Your task to perform on an android device: Search for the best rated running shoes on Nike.com Image 0: 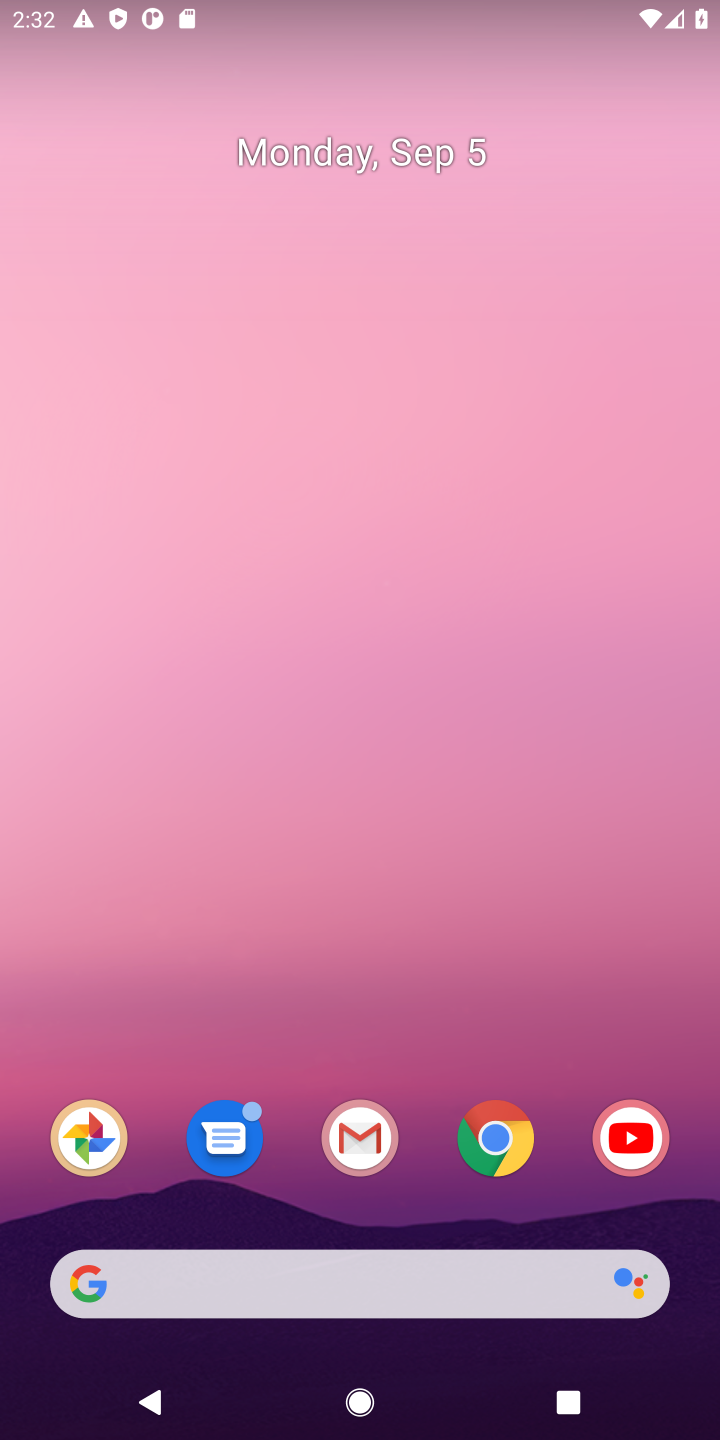
Step 0: click (497, 1140)
Your task to perform on an android device: Search for the best rated running shoes on Nike.com Image 1: 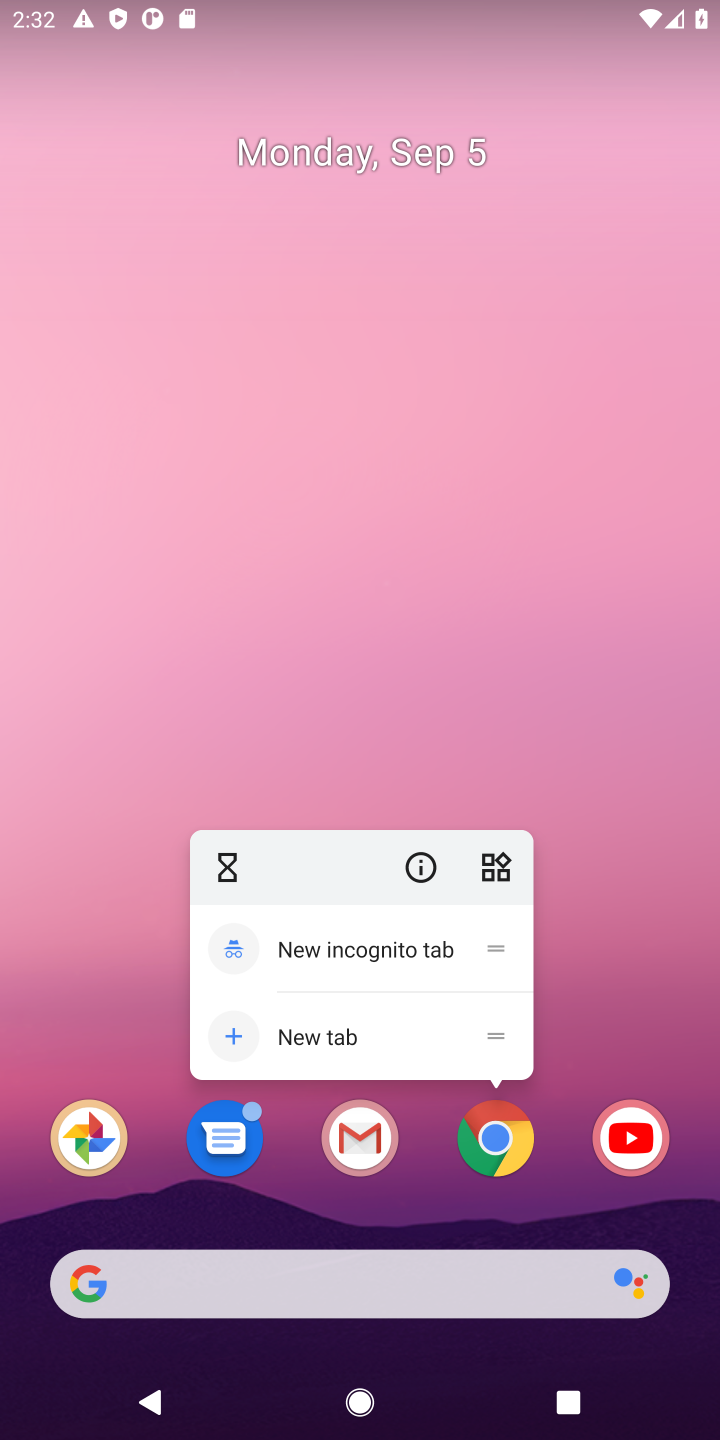
Step 1: click (498, 1136)
Your task to perform on an android device: Search for the best rated running shoes on Nike.com Image 2: 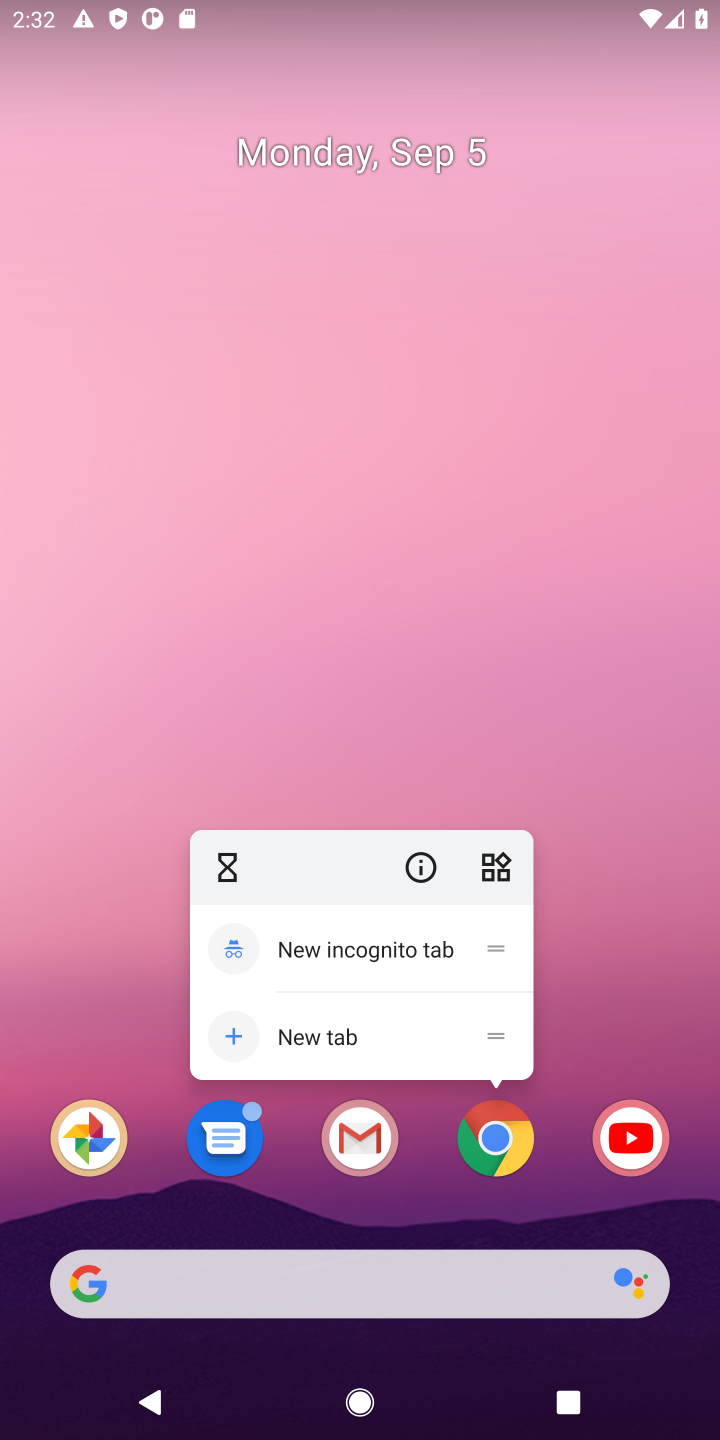
Step 2: click (495, 1137)
Your task to perform on an android device: Search for the best rated running shoes on Nike.com Image 3: 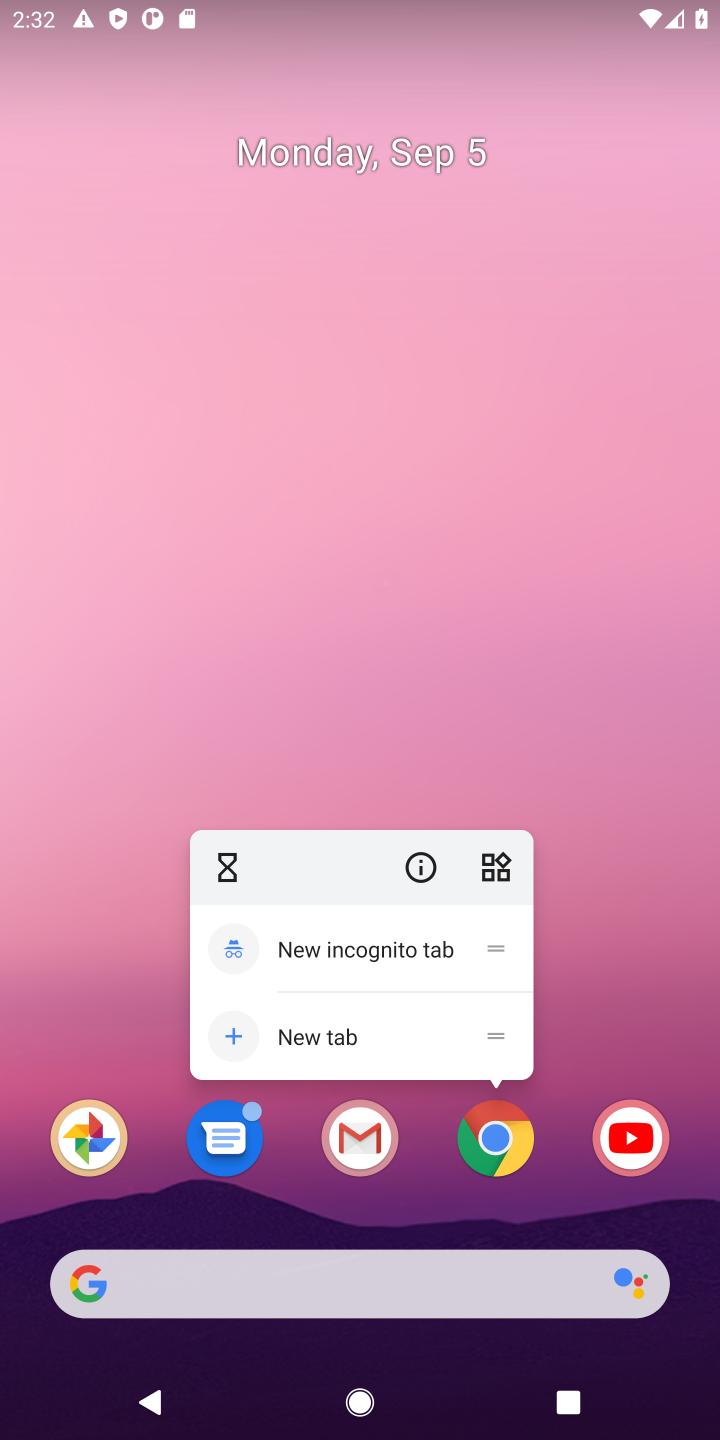
Step 3: click (495, 1137)
Your task to perform on an android device: Search for the best rated running shoes on Nike.com Image 4: 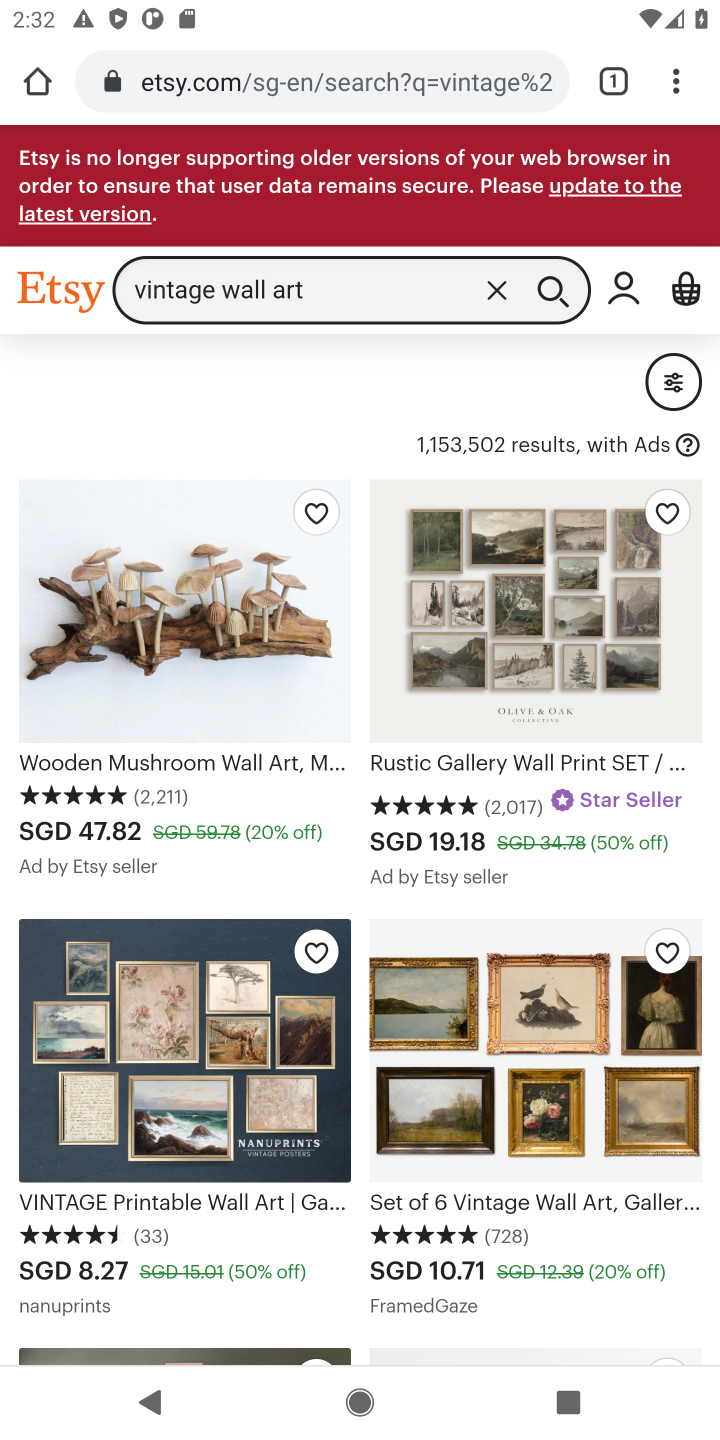
Step 4: click (471, 100)
Your task to perform on an android device: Search for the best rated running shoes on Nike.com Image 5: 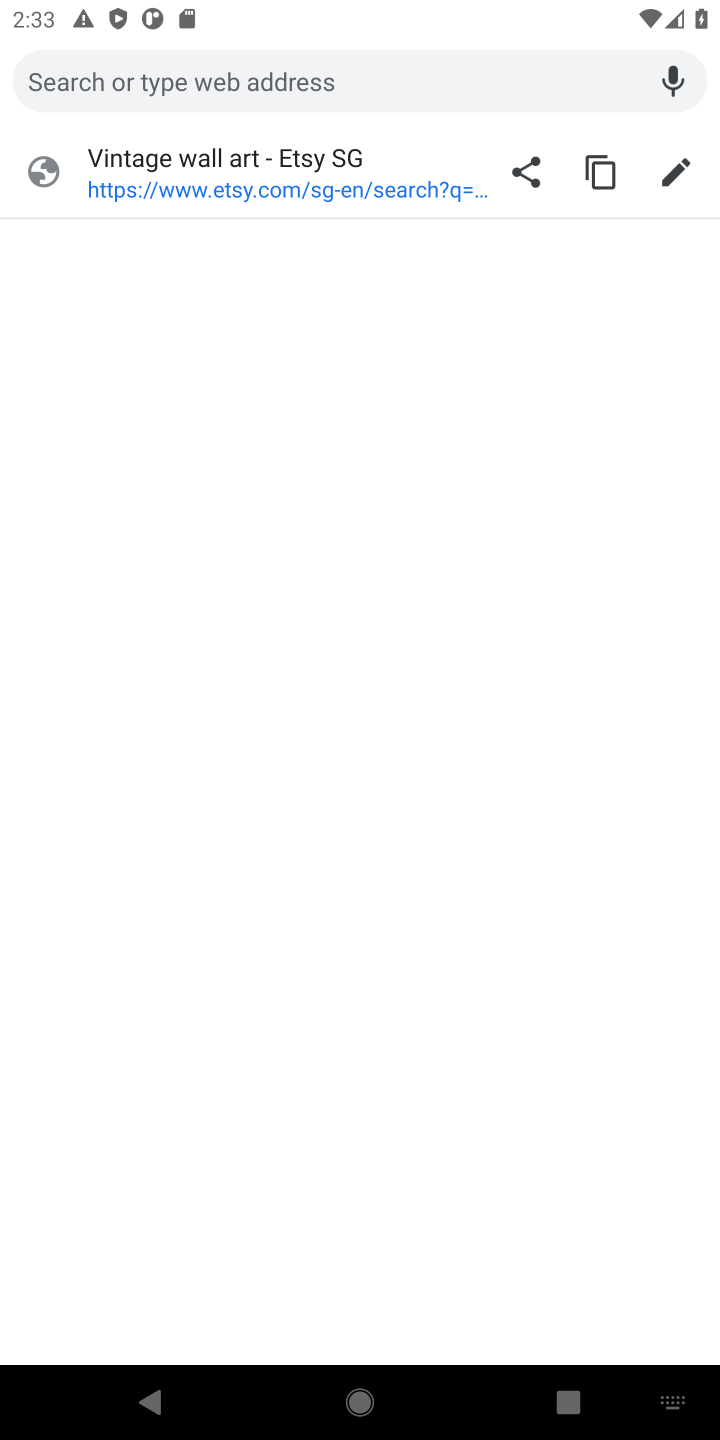
Step 5: type "Nike.com"
Your task to perform on an android device: Search for the best rated running shoes on Nike.com Image 6: 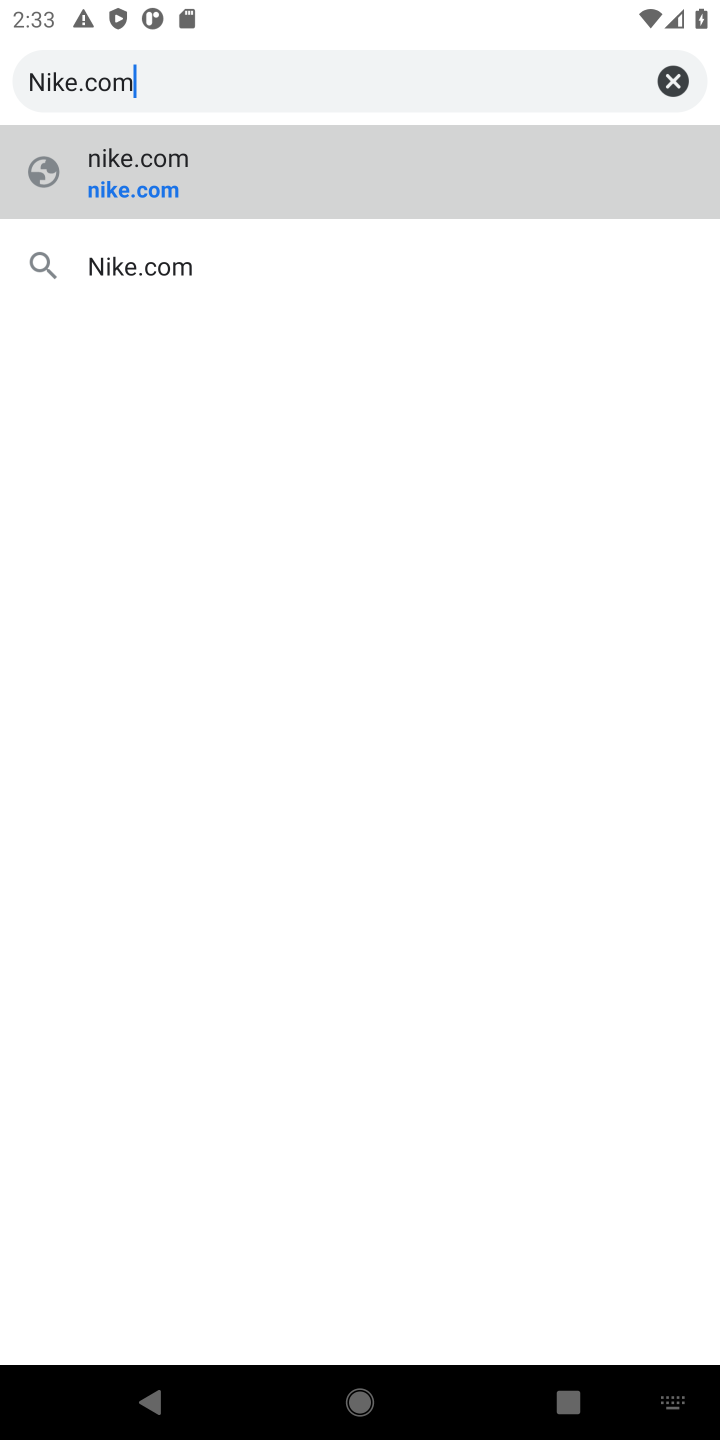
Step 6: click (166, 275)
Your task to perform on an android device: Search for the best rated running shoes on Nike.com Image 7: 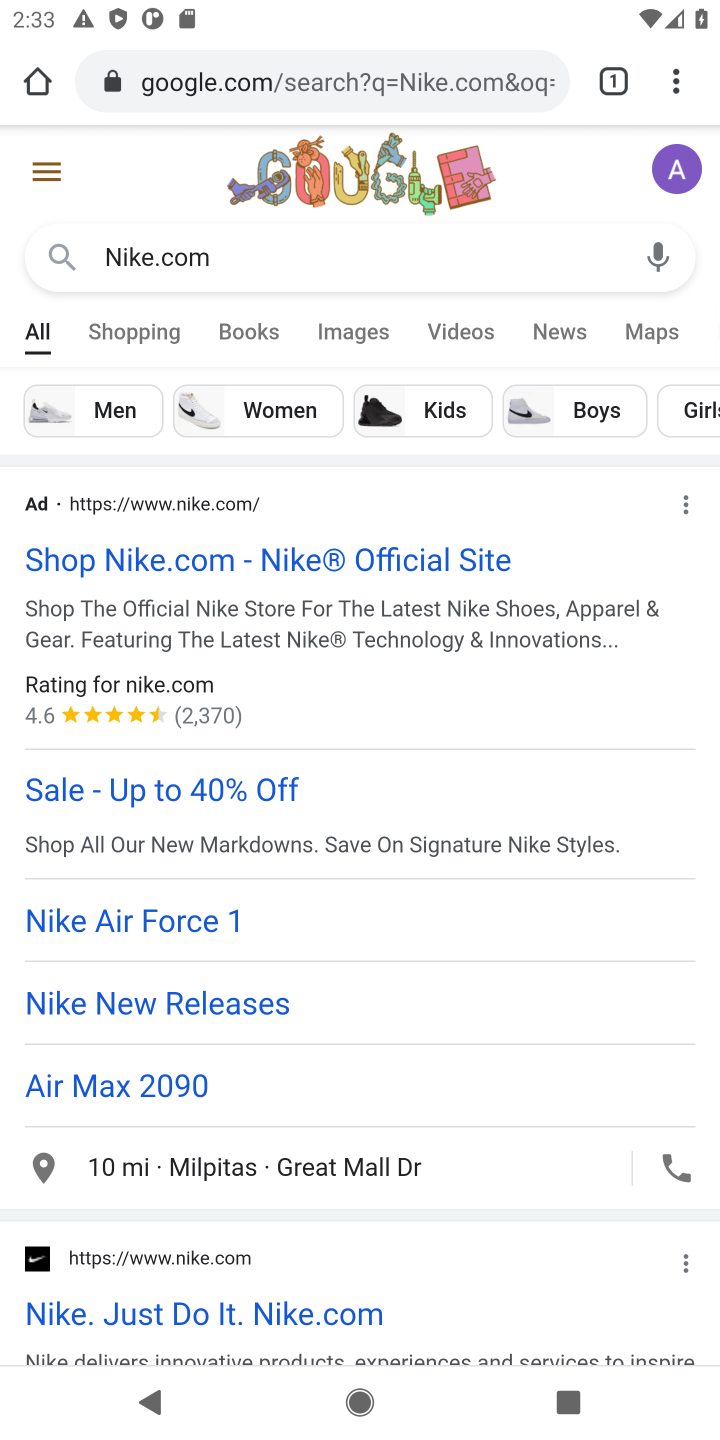
Step 7: click (347, 1331)
Your task to perform on an android device: Search for the best rated running shoes on Nike.com Image 8: 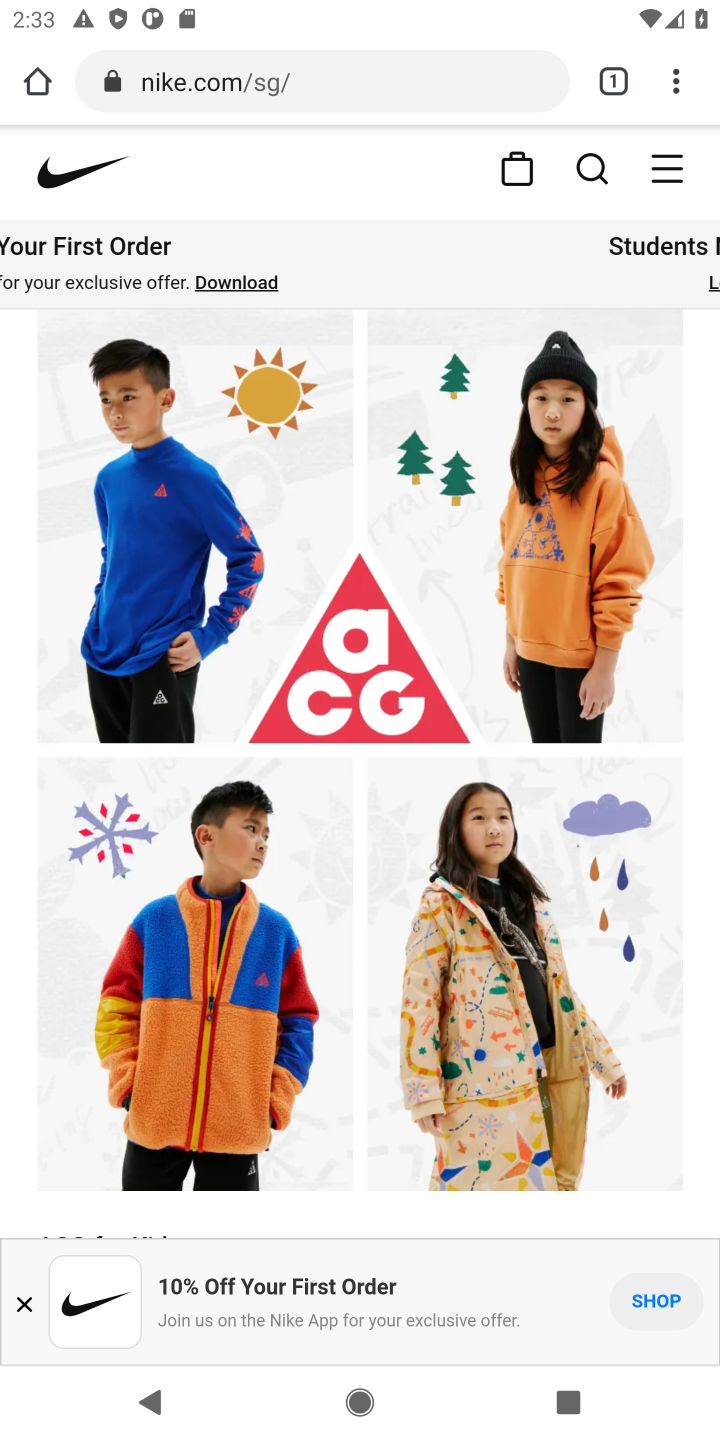
Step 8: click (589, 172)
Your task to perform on an android device: Search for the best rated running shoes on Nike.com Image 9: 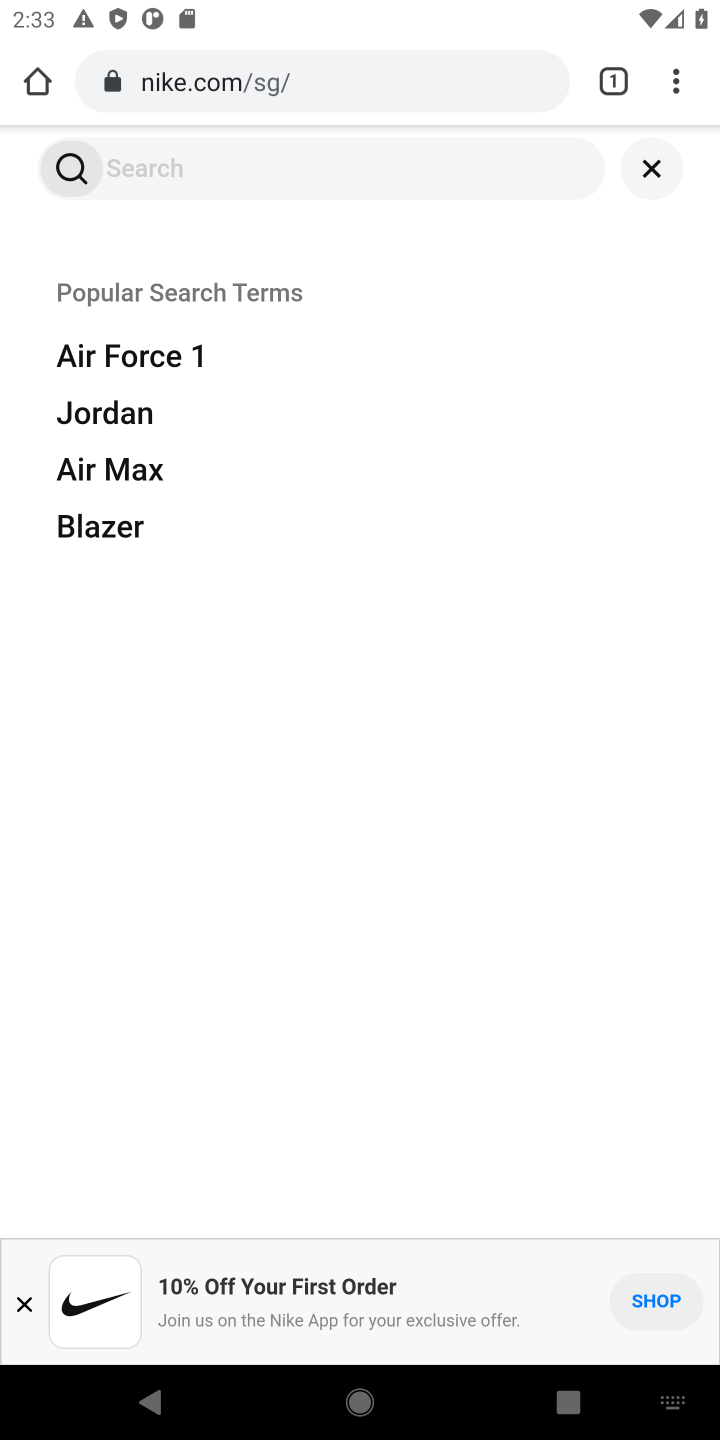
Step 9: click (470, 167)
Your task to perform on an android device: Search for the best rated running shoes on Nike.com Image 10: 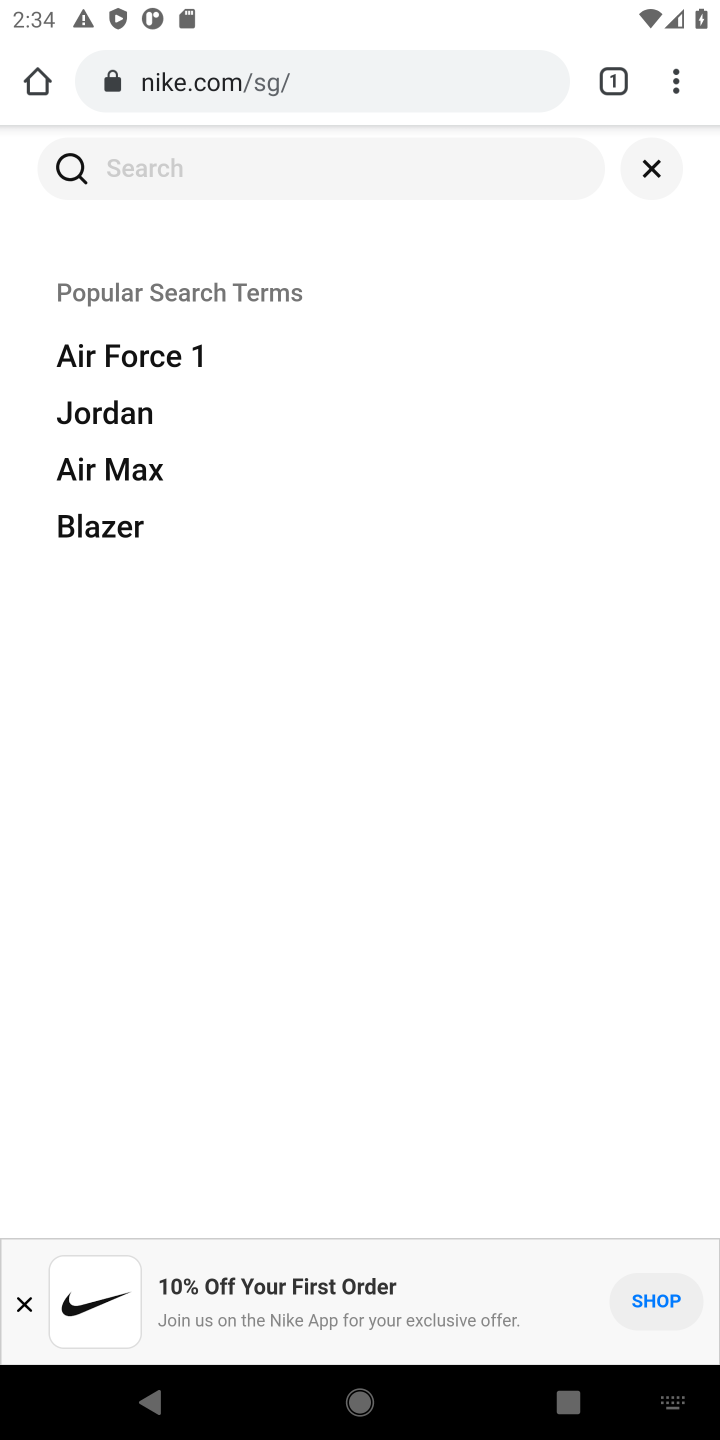
Step 10: type "best rated running shoes"
Your task to perform on an android device: Search for the best rated running shoes on Nike.com Image 11: 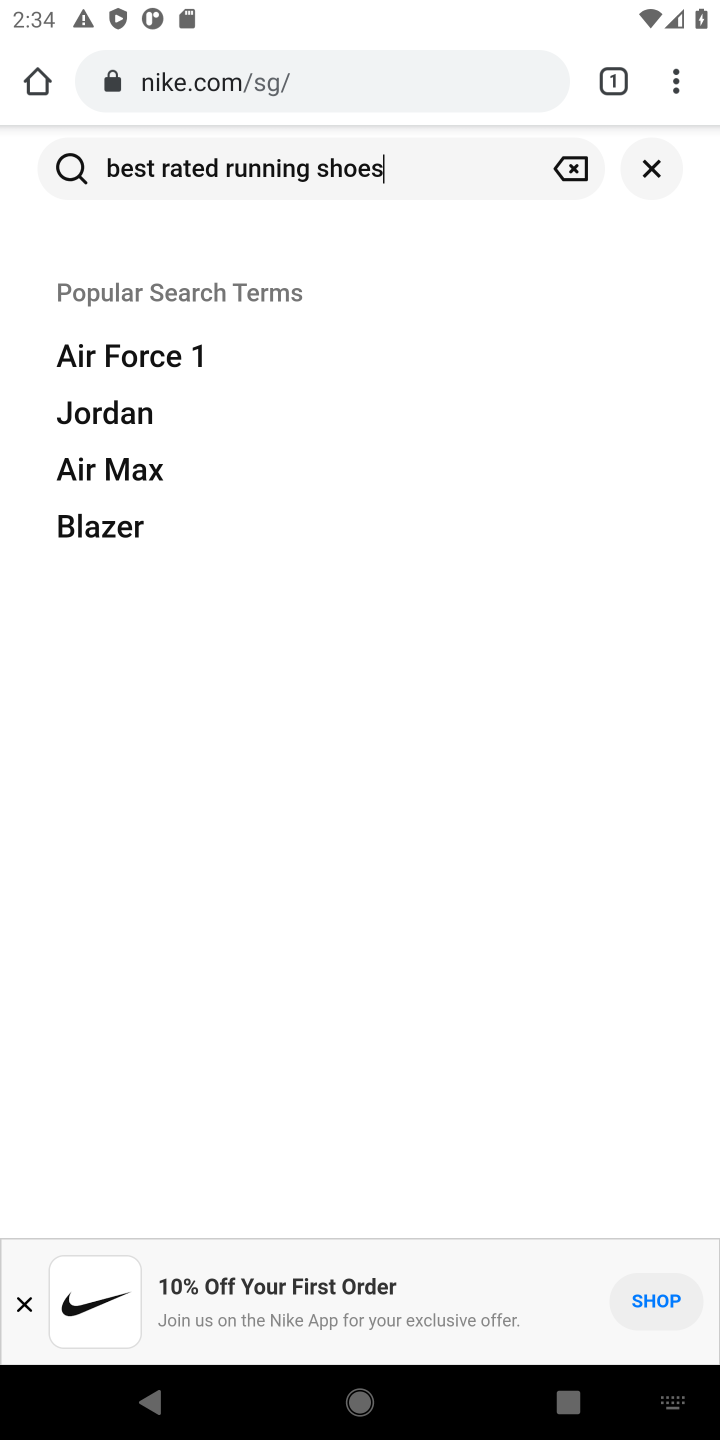
Step 11: click (73, 174)
Your task to perform on an android device: Search for the best rated running shoes on Nike.com Image 12: 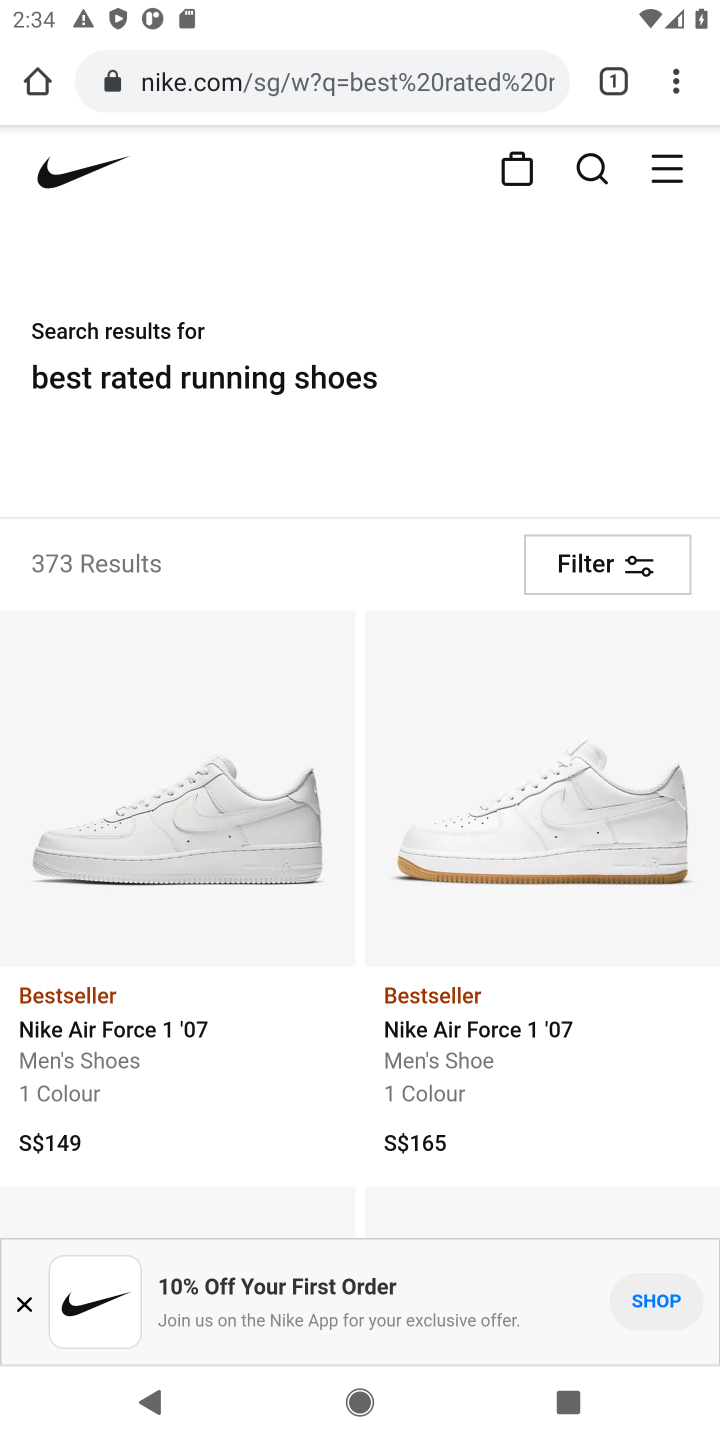
Step 12: task complete